Your task to perform on an android device: Open my contact list Image 0: 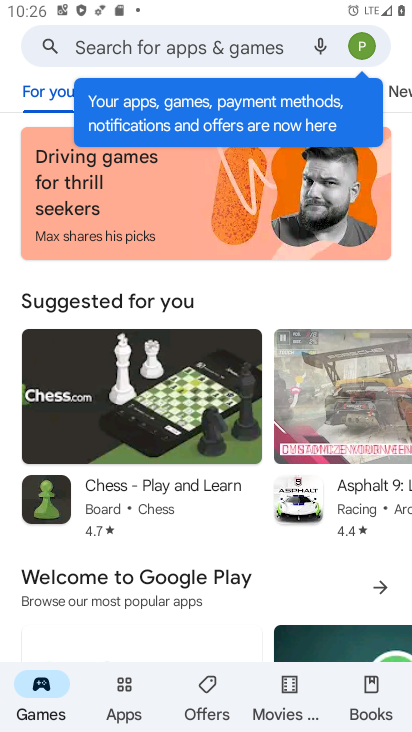
Step 0: press home button
Your task to perform on an android device: Open my contact list Image 1: 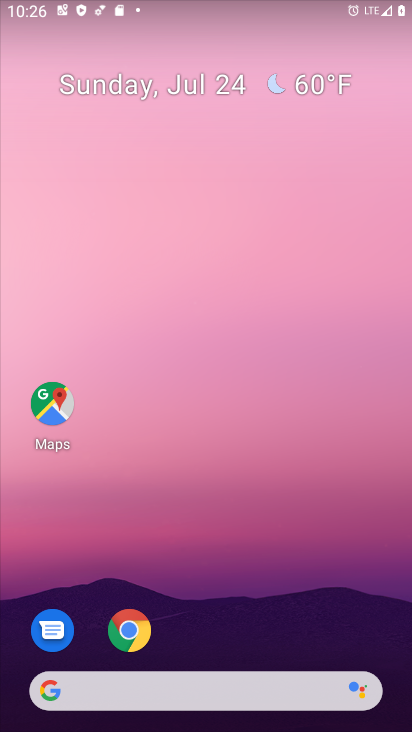
Step 1: drag from (232, 482) to (337, 20)
Your task to perform on an android device: Open my contact list Image 2: 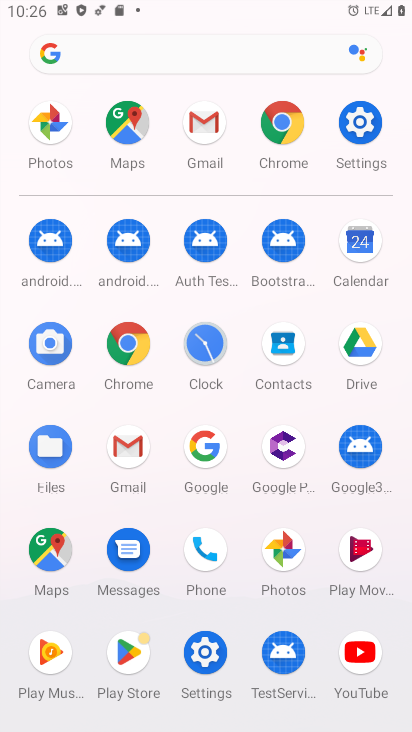
Step 2: click (277, 354)
Your task to perform on an android device: Open my contact list Image 3: 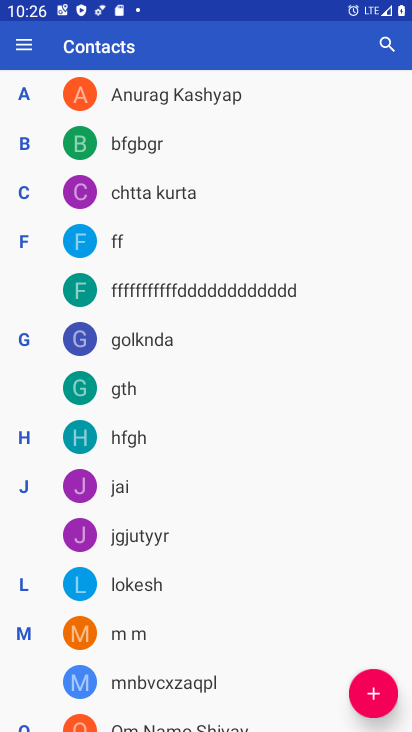
Step 3: task complete